Your task to perform on an android device: Show me popular games on the Play Store Image 0: 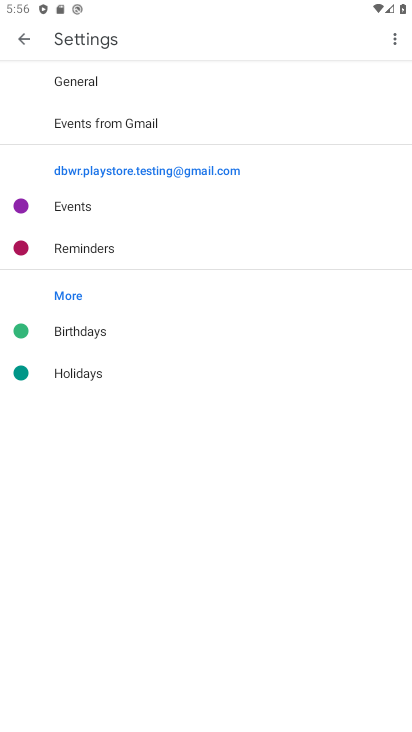
Step 0: press home button
Your task to perform on an android device: Show me popular games on the Play Store Image 1: 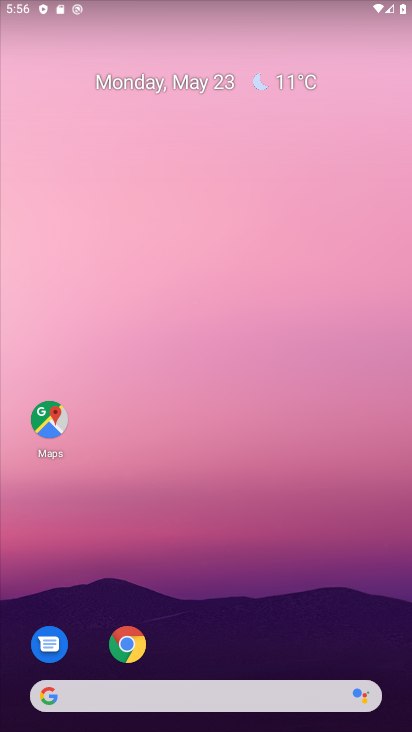
Step 1: drag from (237, 647) to (229, 262)
Your task to perform on an android device: Show me popular games on the Play Store Image 2: 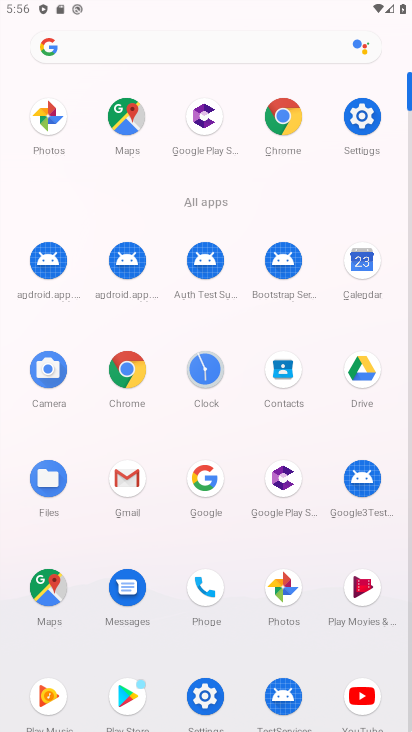
Step 2: click (135, 693)
Your task to perform on an android device: Show me popular games on the Play Store Image 3: 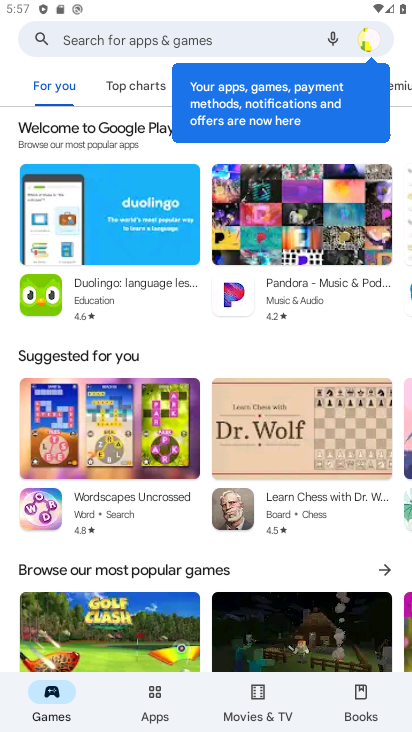
Step 3: task complete